Your task to perform on an android device: Go to Maps Image 0: 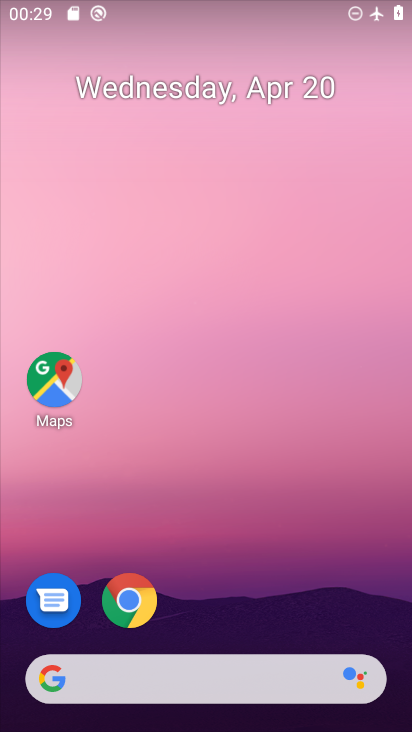
Step 0: drag from (321, 595) to (310, 162)
Your task to perform on an android device: Go to Maps Image 1: 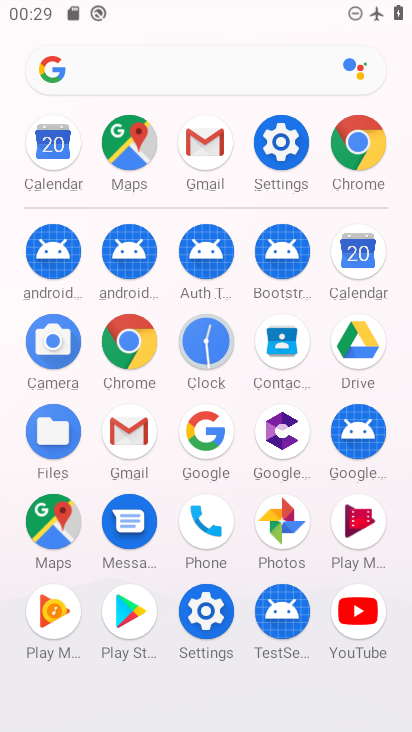
Step 1: click (43, 513)
Your task to perform on an android device: Go to Maps Image 2: 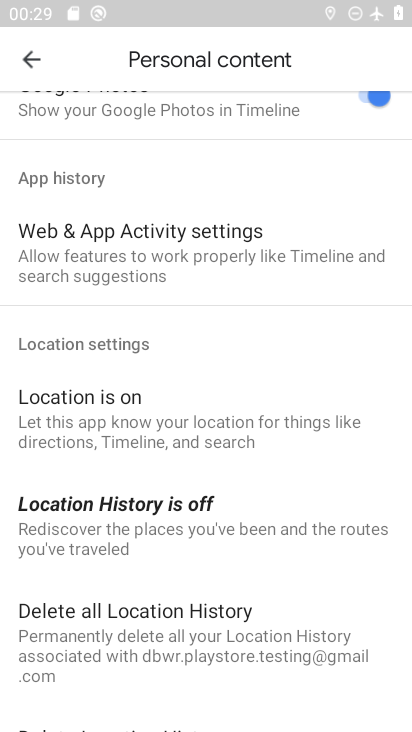
Step 2: click (27, 67)
Your task to perform on an android device: Go to Maps Image 3: 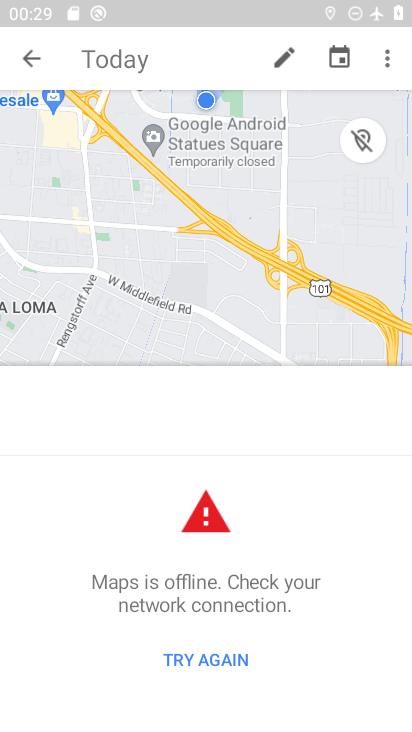
Step 3: click (27, 66)
Your task to perform on an android device: Go to Maps Image 4: 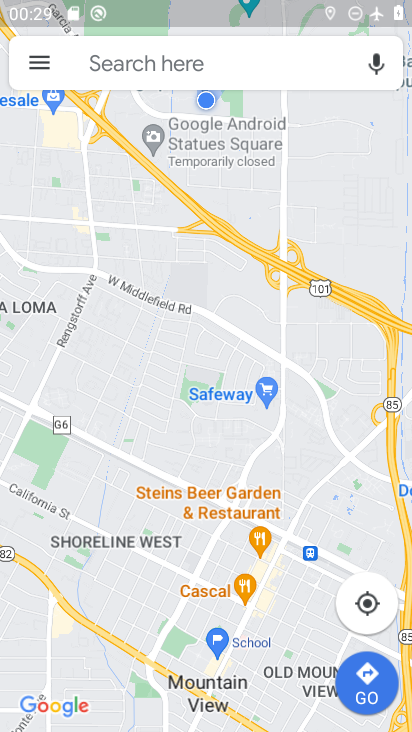
Step 4: task complete